Your task to perform on an android device: Go to internet settings Image 0: 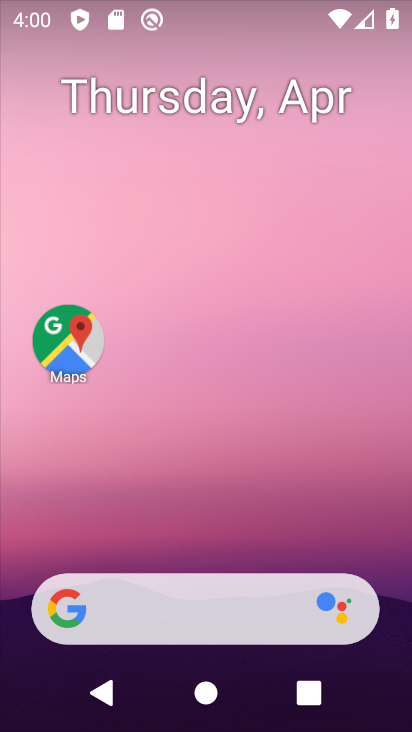
Step 0: drag from (215, 723) to (218, 160)
Your task to perform on an android device: Go to internet settings Image 1: 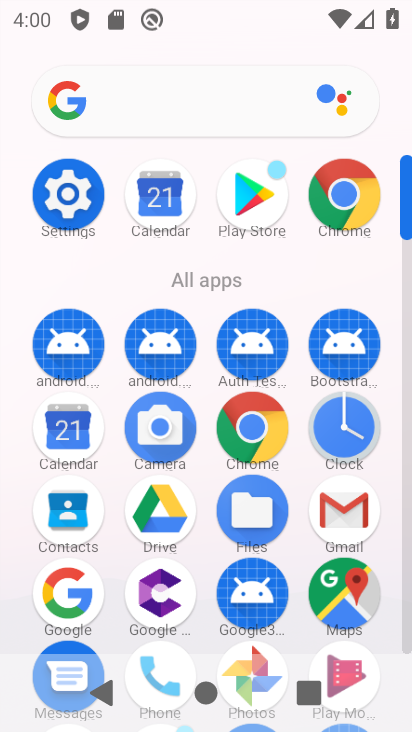
Step 1: click (75, 198)
Your task to perform on an android device: Go to internet settings Image 2: 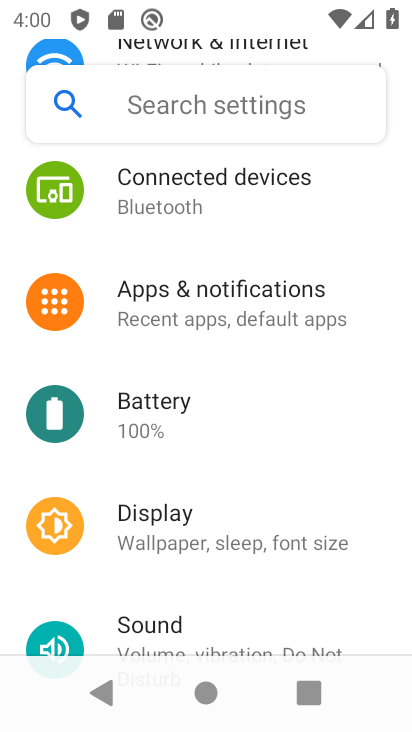
Step 2: drag from (217, 162) to (191, 590)
Your task to perform on an android device: Go to internet settings Image 3: 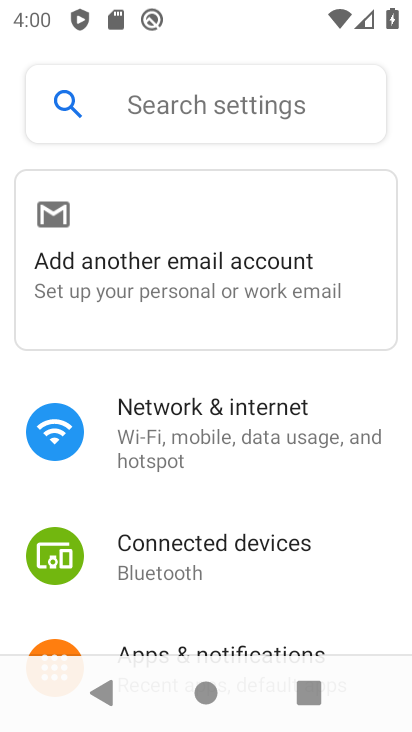
Step 3: click (168, 433)
Your task to perform on an android device: Go to internet settings Image 4: 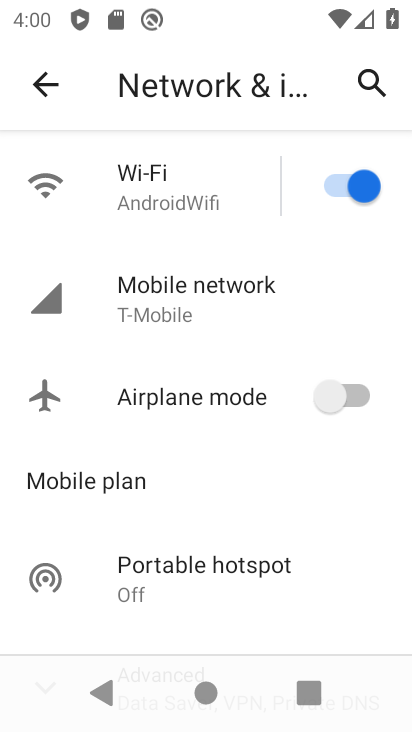
Step 4: task complete